Your task to perform on an android device: open app "DuckDuckGo Privacy Browser" (install if not already installed) Image 0: 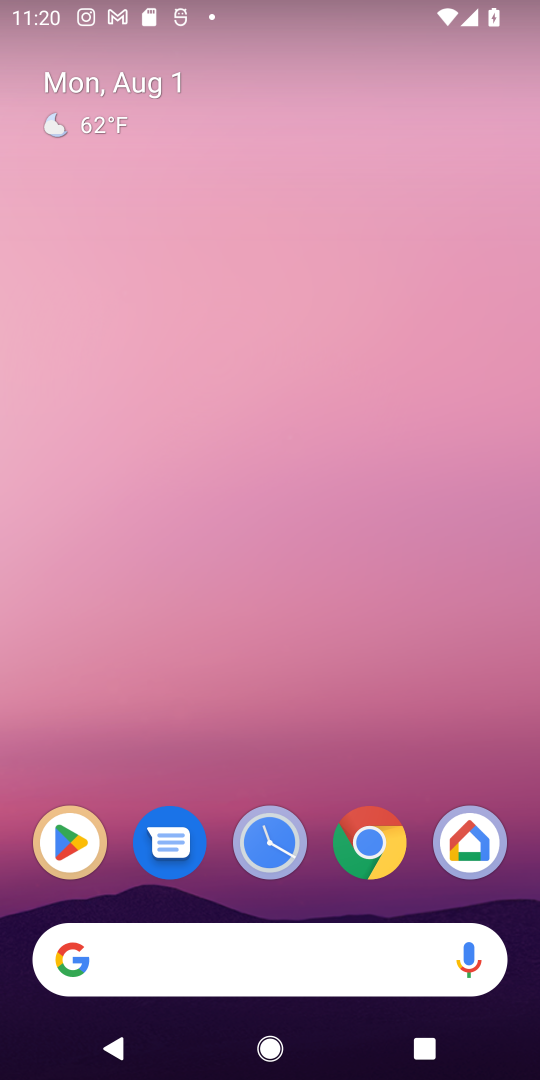
Step 0: click (81, 847)
Your task to perform on an android device: open app "DuckDuckGo Privacy Browser" (install if not already installed) Image 1: 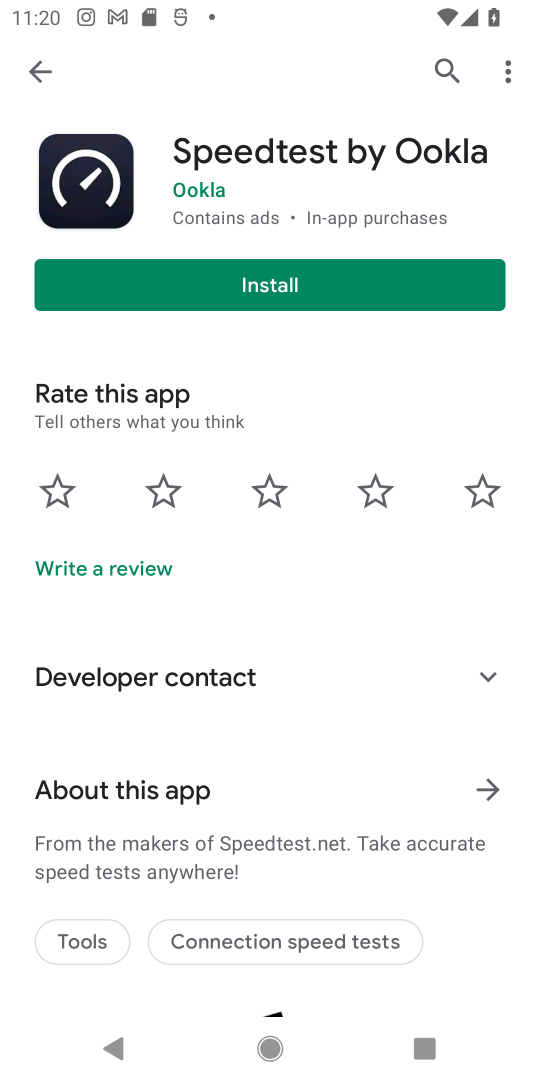
Step 1: click (443, 65)
Your task to perform on an android device: open app "DuckDuckGo Privacy Browser" (install if not already installed) Image 2: 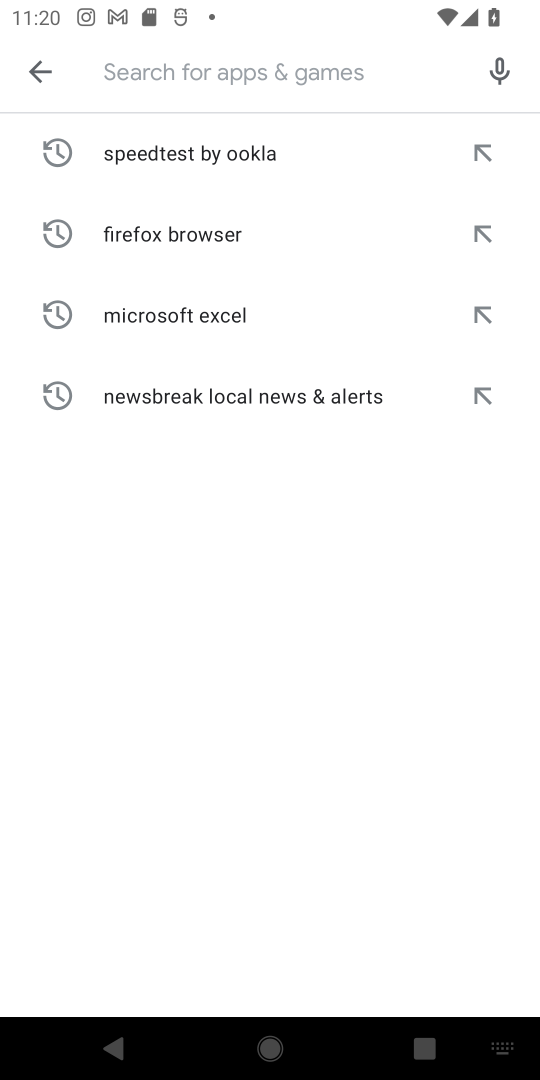
Step 2: click (288, 63)
Your task to perform on an android device: open app "DuckDuckGo Privacy Browser" (install if not already installed) Image 3: 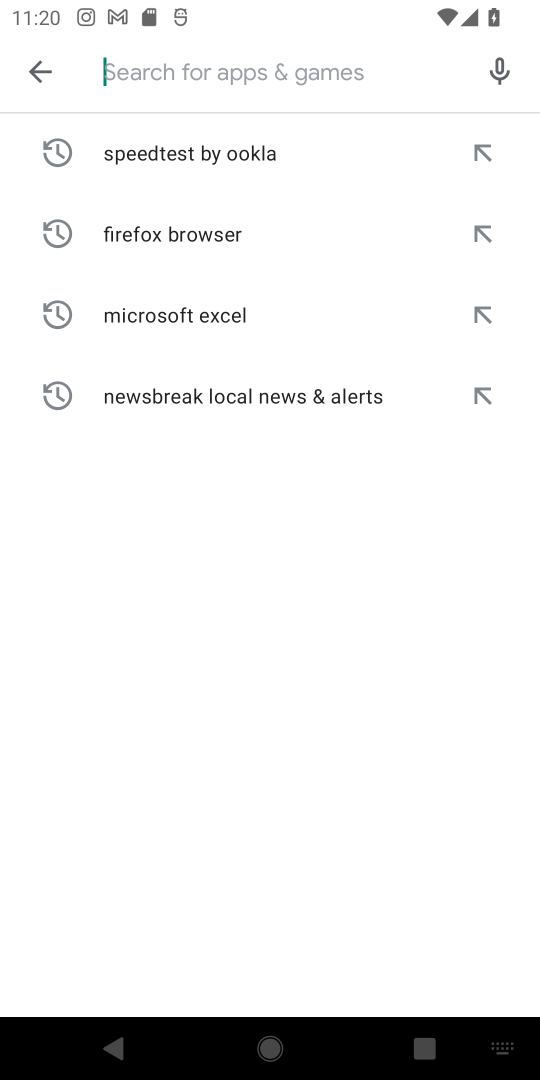
Step 3: click (122, 80)
Your task to perform on an android device: open app "DuckDuckGo Privacy Browser" (install if not already installed) Image 4: 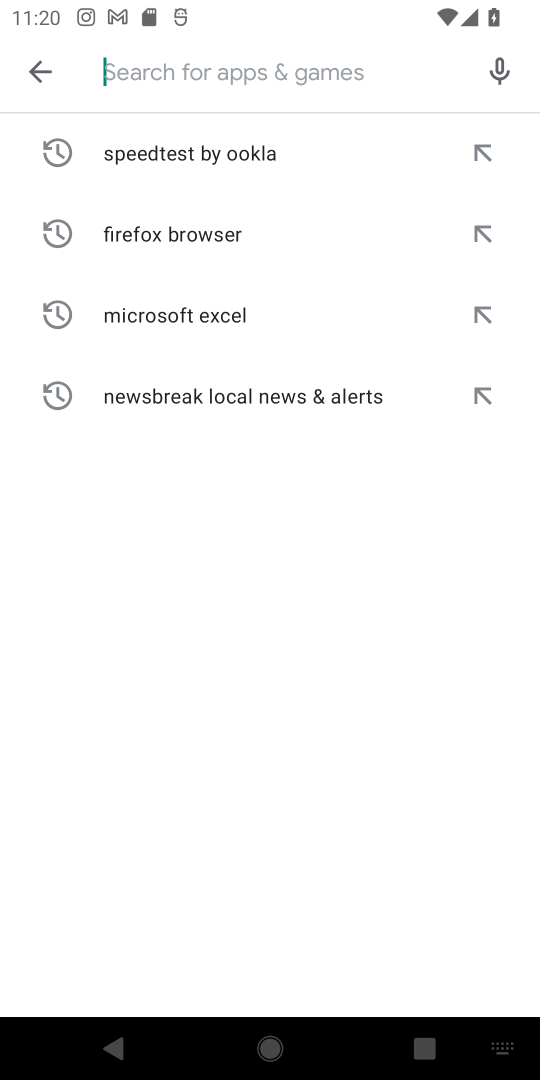
Step 4: type "DuckDuckGo Privacy Browse"
Your task to perform on an android device: open app "DuckDuckGo Privacy Browser" (install if not already installed) Image 5: 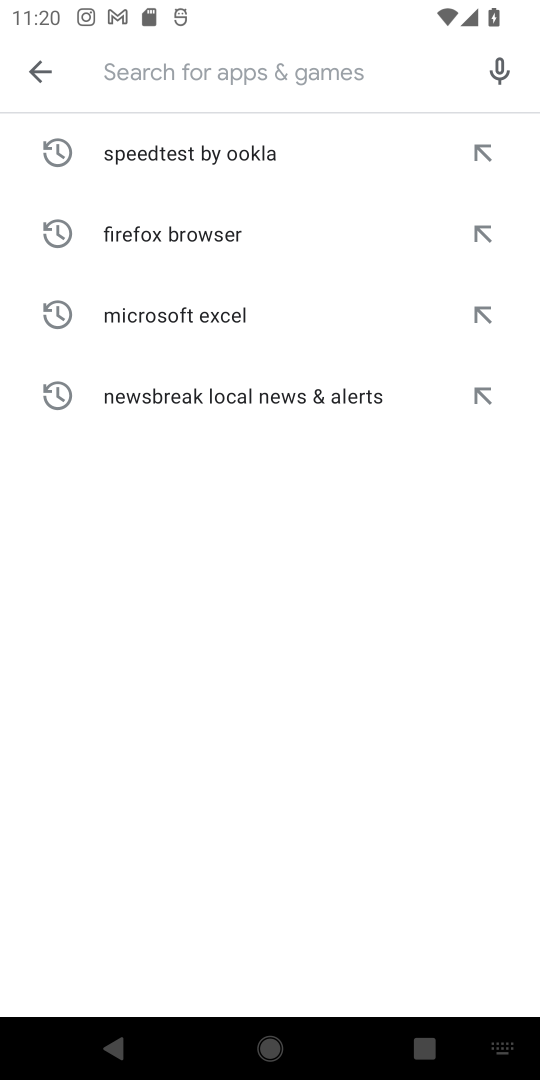
Step 5: click (324, 616)
Your task to perform on an android device: open app "DuckDuckGo Privacy Browser" (install if not already installed) Image 6: 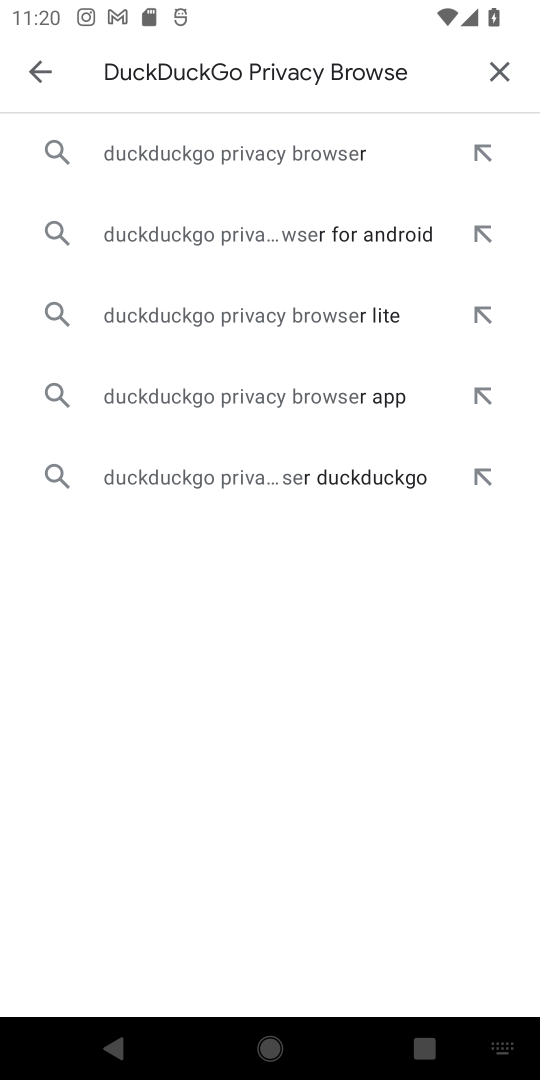
Step 6: click (156, 161)
Your task to perform on an android device: open app "DuckDuckGo Privacy Browser" (install if not already installed) Image 7: 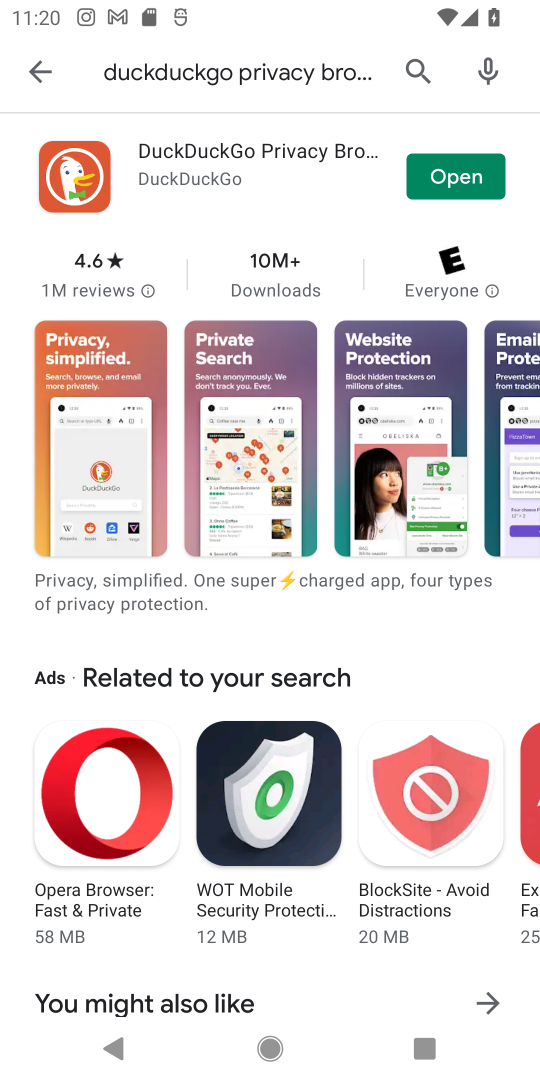
Step 7: click (465, 179)
Your task to perform on an android device: open app "DuckDuckGo Privacy Browser" (install if not already installed) Image 8: 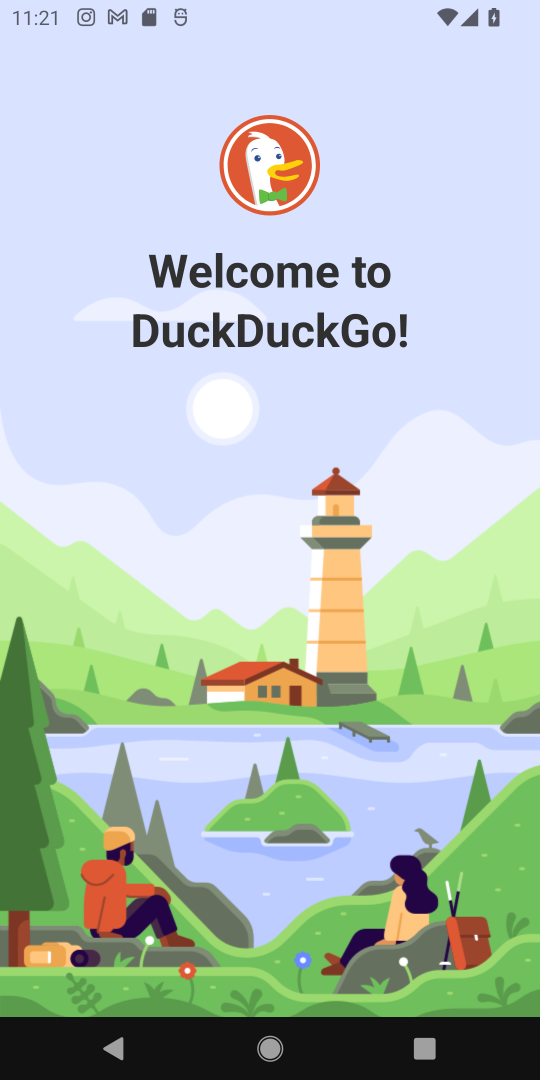
Step 8: task complete